Your task to perform on an android device: Open the Play Movies app and select the watchlist tab. Image 0: 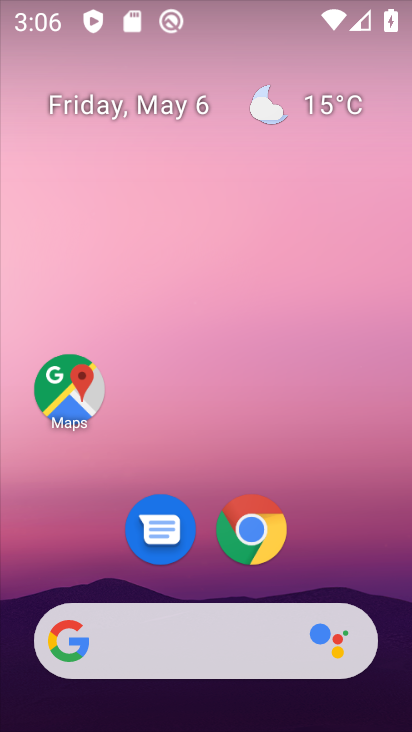
Step 0: drag from (367, 621) to (223, 84)
Your task to perform on an android device: Open the Play Movies app and select the watchlist tab. Image 1: 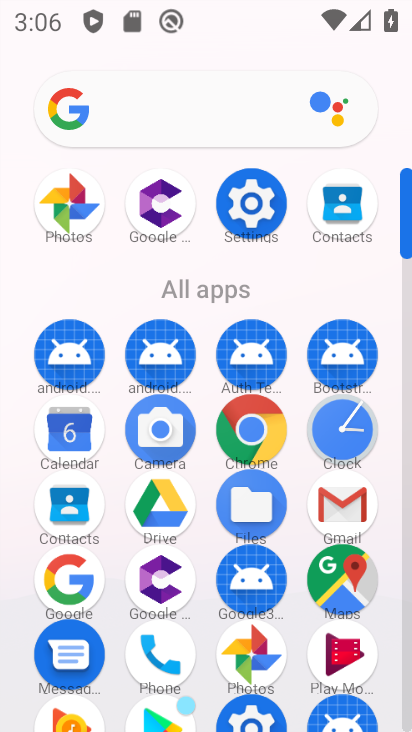
Step 1: drag from (290, 620) to (240, 288)
Your task to perform on an android device: Open the Play Movies app and select the watchlist tab. Image 2: 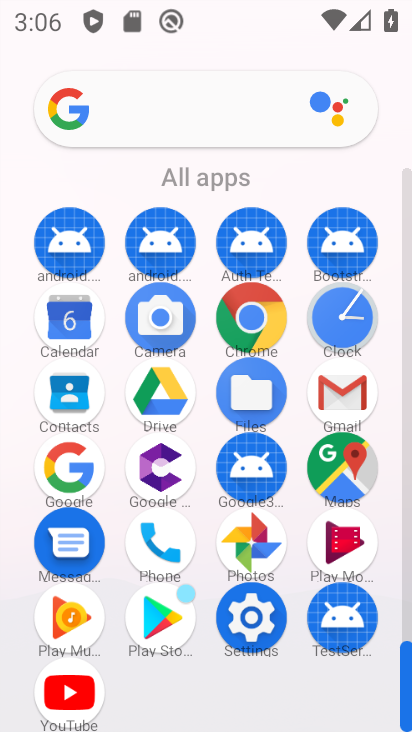
Step 2: drag from (298, 524) to (241, 216)
Your task to perform on an android device: Open the Play Movies app and select the watchlist tab. Image 3: 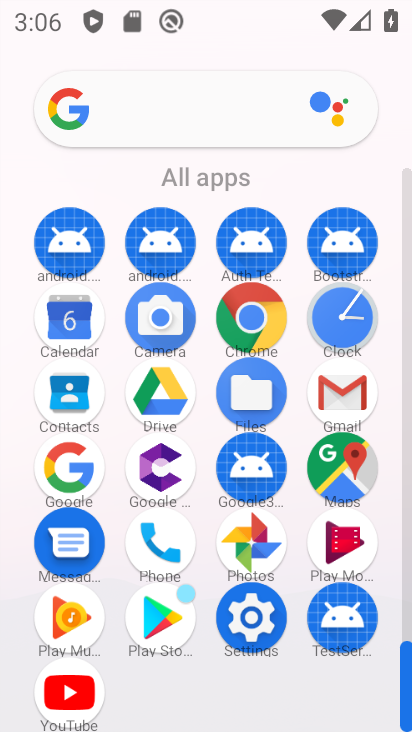
Step 3: click (53, 688)
Your task to perform on an android device: Open the Play Movies app and select the watchlist tab. Image 4: 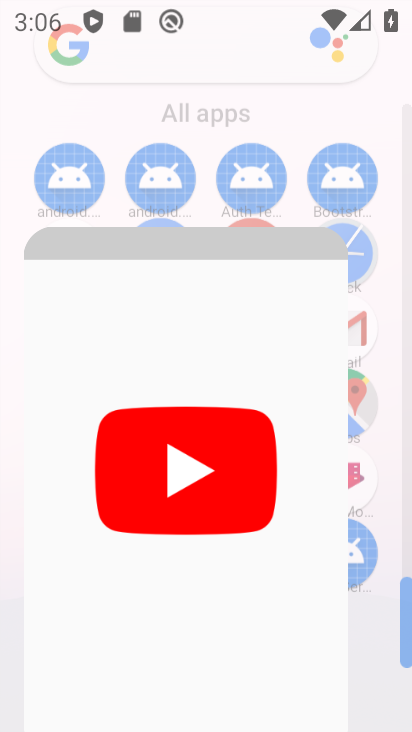
Step 4: click (59, 688)
Your task to perform on an android device: Open the Play Movies app and select the watchlist tab. Image 5: 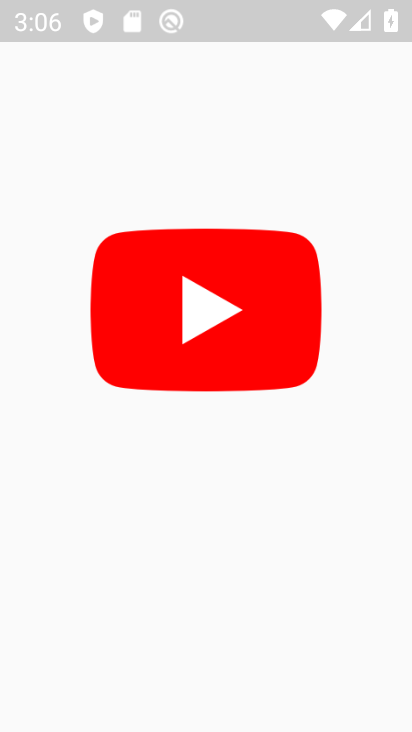
Step 5: click (66, 689)
Your task to perform on an android device: Open the Play Movies app and select the watchlist tab. Image 6: 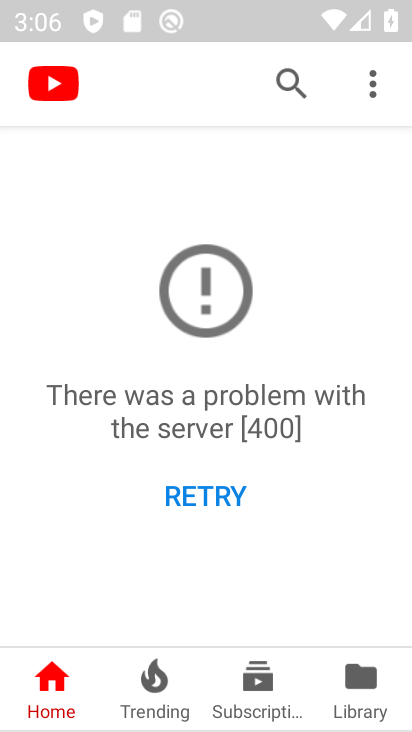
Step 6: press home button
Your task to perform on an android device: Open the Play Movies app and select the watchlist tab. Image 7: 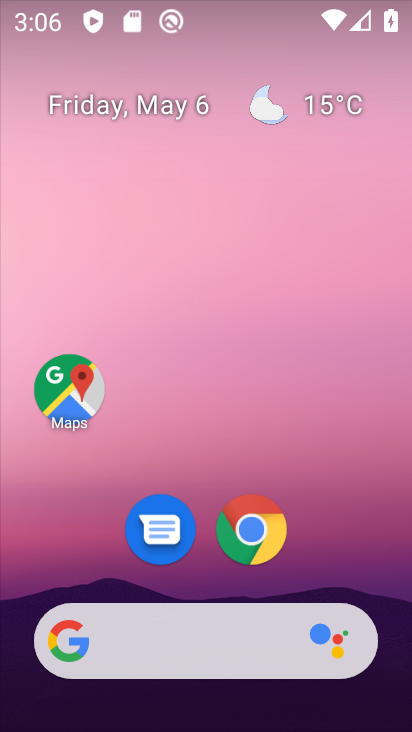
Step 7: drag from (326, 594) to (94, 0)
Your task to perform on an android device: Open the Play Movies app and select the watchlist tab. Image 8: 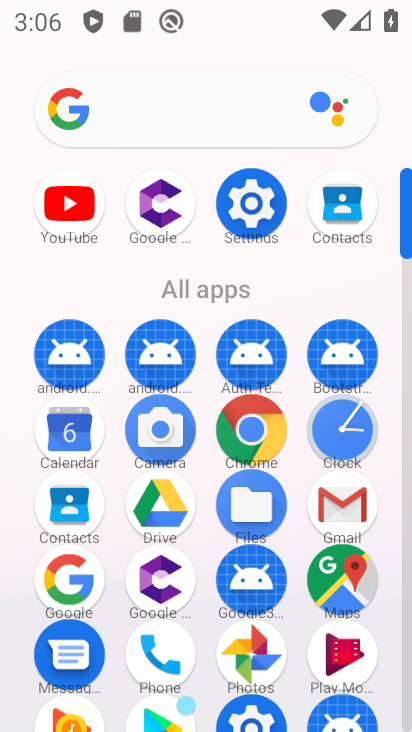
Step 8: click (346, 639)
Your task to perform on an android device: Open the Play Movies app and select the watchlist tab. Image 9: 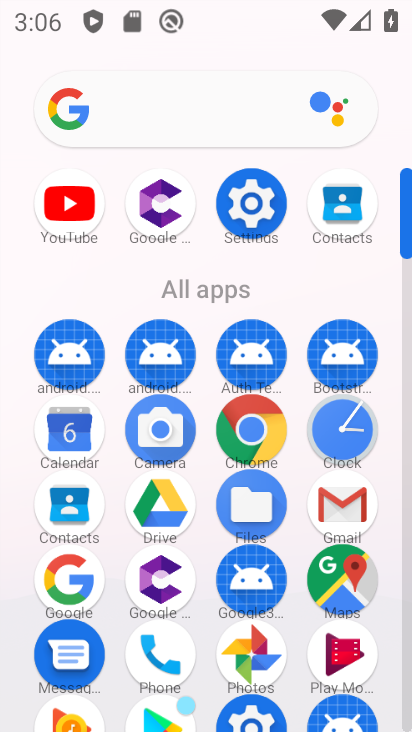
Step 9: click (348, 641)
Your task to perform on an android device: Open the Play Movies app and select the watchlist tab. Image 10: 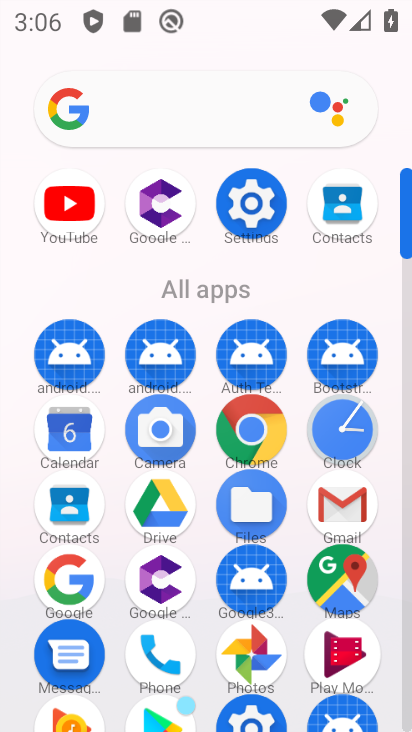
Step 10: click (346, 639)
Your task to perform on an android device: Open the Play Movies app and select the watchlist tab. Image 11: 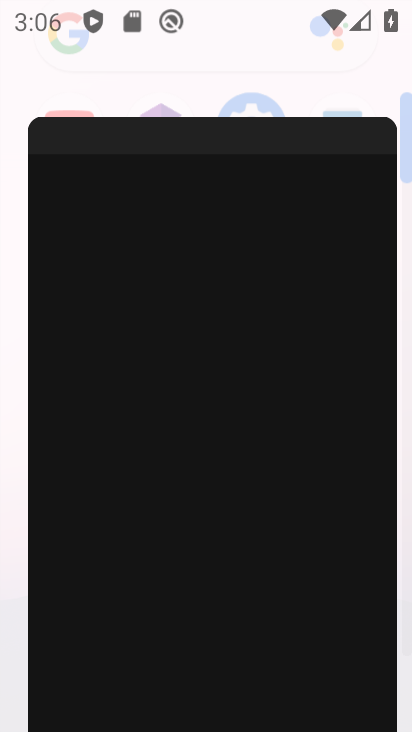
Step 11: click (341, 645)
Your task to perform on an android device: Open the Play Movies app and select the watchlist tab. Image 12: 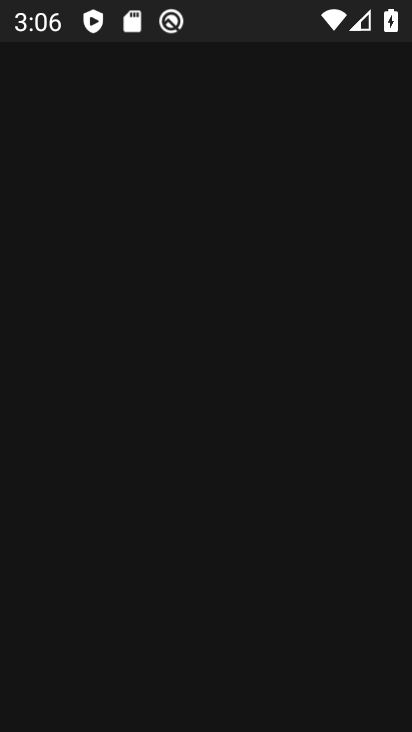
Step 12: click (341, 641)
Your task to perform on an android device: Open the Play Movies app and select the watchlist tab. Image 13: 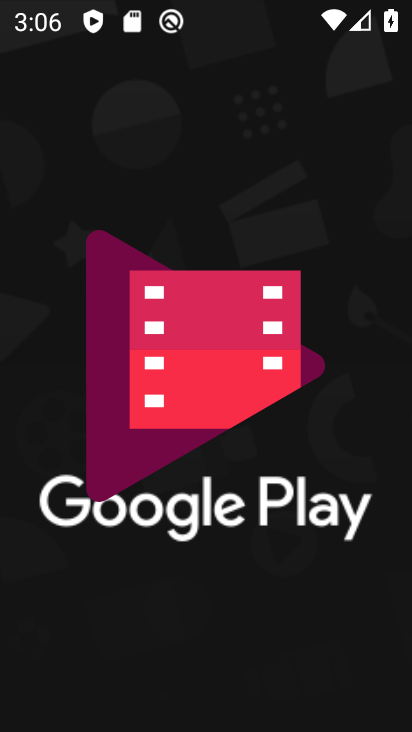
Step 13: drag from (232, 590) to (183, 244)
Your task to perform on an android device: Open the Play Movies app and select the watchlist tab. Image 14: 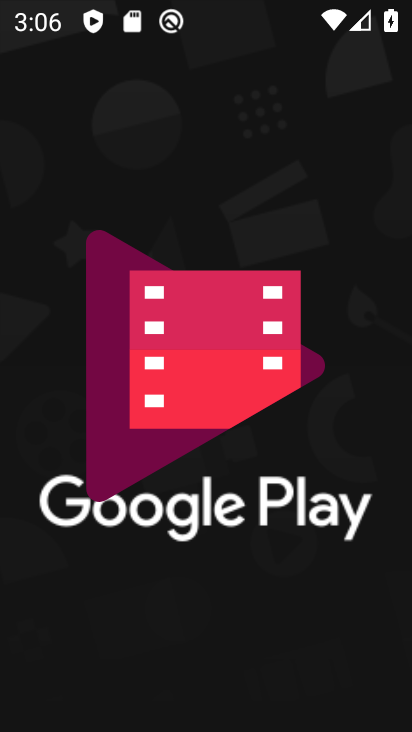
Step 14: drag from (256, 556) to (174, 175)
Your task to perform on an android device: Open the Play Movies app and select the watchlist tab. Image 15: 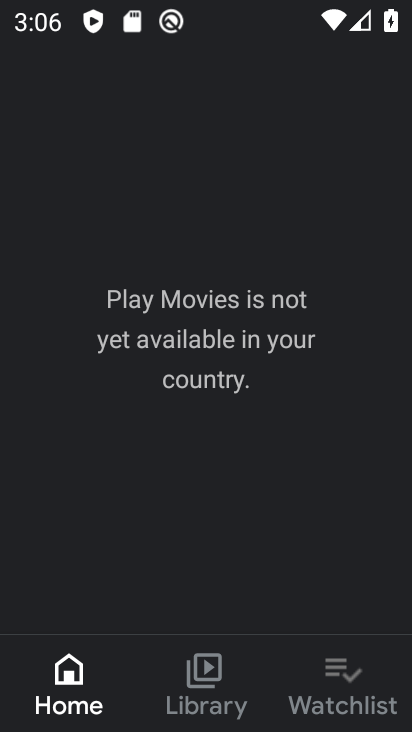
Step 15: click (338, 693)
Your task to perform on an android device: Open the Play Movies app and select the watchlist tab. Image 16: 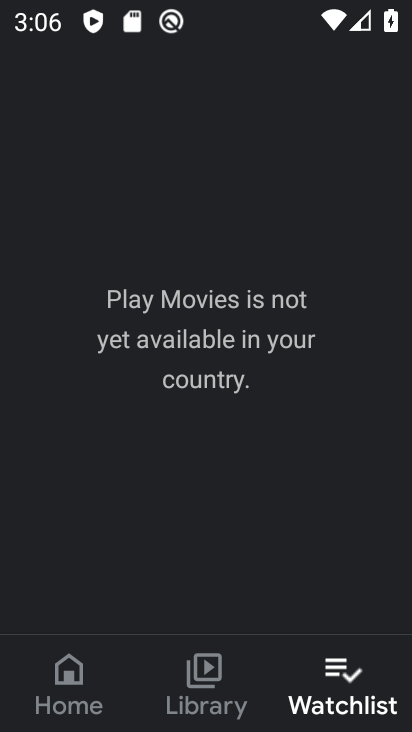
Step 16: click (336, 688)
Your task to perform on an android device: Open the Play Movies app and select the watchlist tab. Image 17: 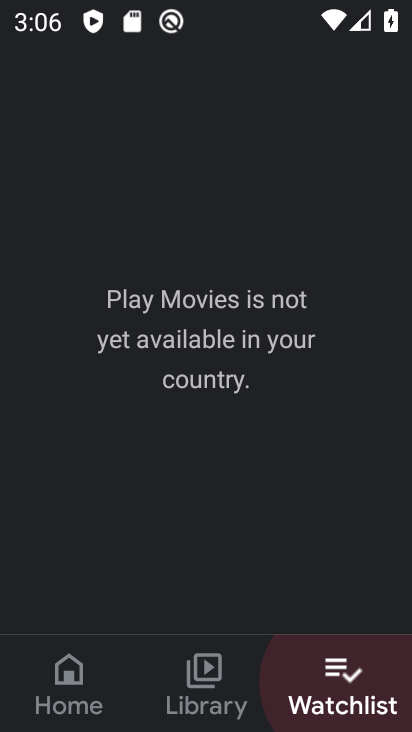
Step 17: click (336, 692)
Your task to perform on an android device: Open the Play Movies app and select the watchlist tab. Image 18: 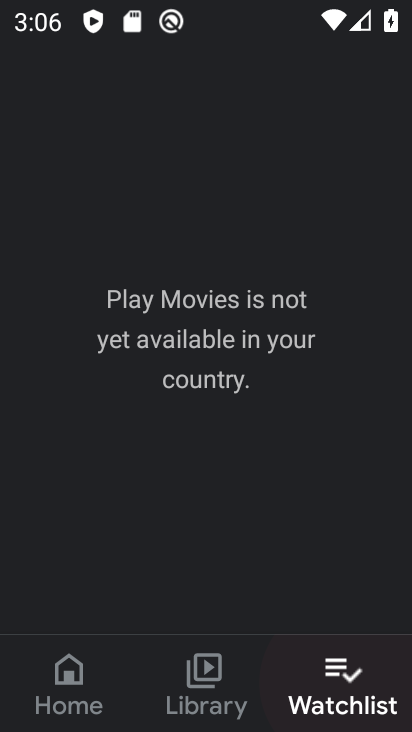
Step 18: click (314, 673)
Your task to perform on an android device: Open the Play Movies app and select the watchlist tab. Image 19: 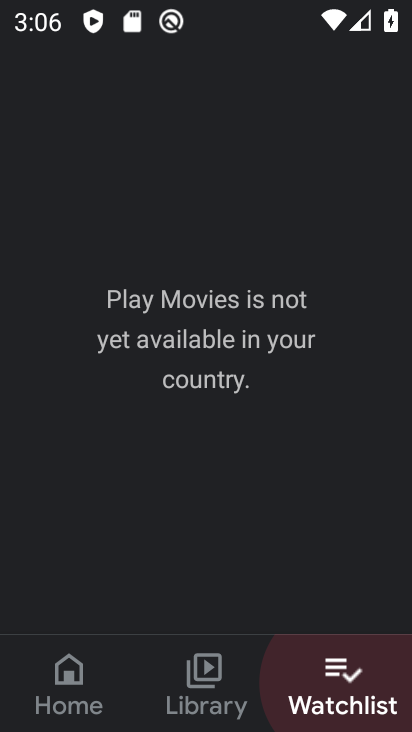
Step 19: click (313, 688)
Your task to perform on an android device: Open the Play Movies app and select the watchlist tab. Image 20: 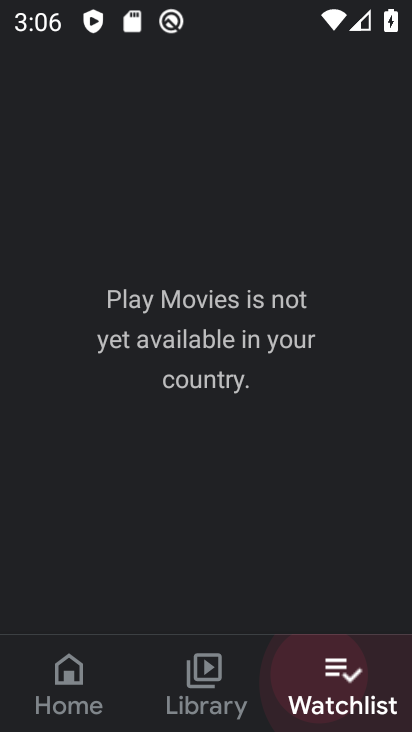
Step 20: click (318, 689)
Your task to perform on an android device: Open the Play Movies app and select the watchlist tab. Image 21: 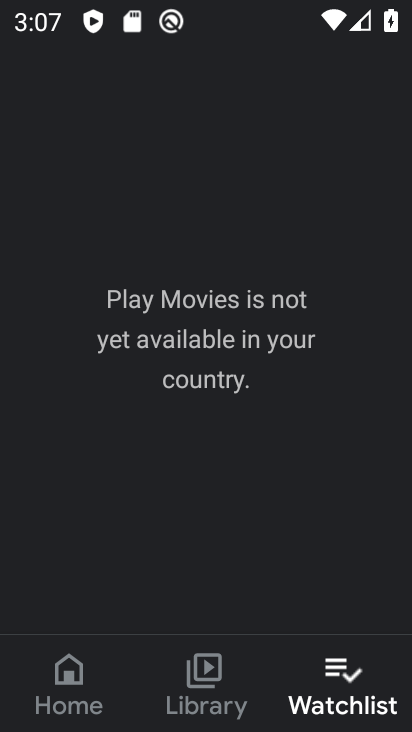
Step 21: task complete